Your task to perform on an android device: Go to Amazon Image 0: 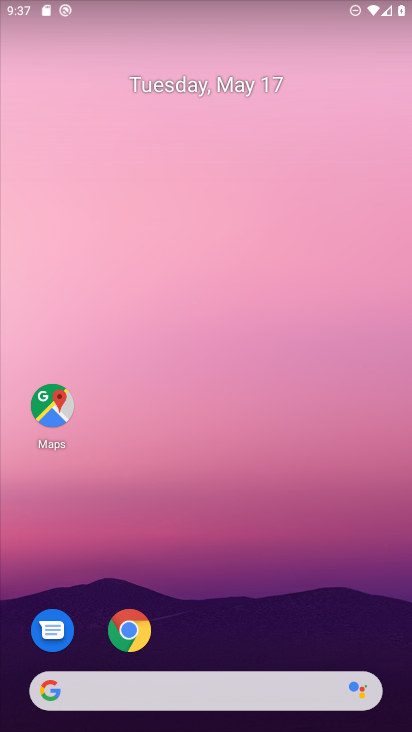
Step 0: drag from (335, 625) to (349, 175)
Your task to perform on an android device: Go to Amazon Image 1: 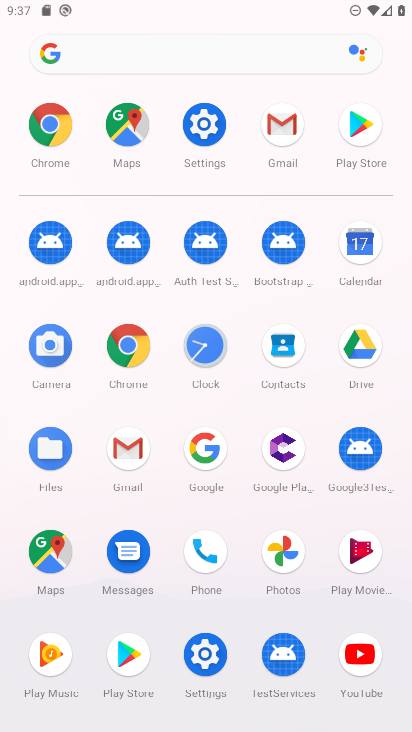
Step 1: click (138, 356)
Your task to perform on an android device: Go to Amazon Image 2: 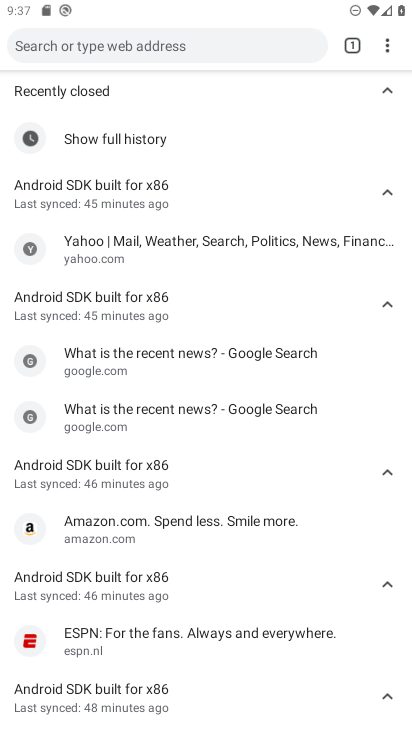
Step 2: click (170, 50)
Your task to perform on an android device: Go to Amazon Image 3: 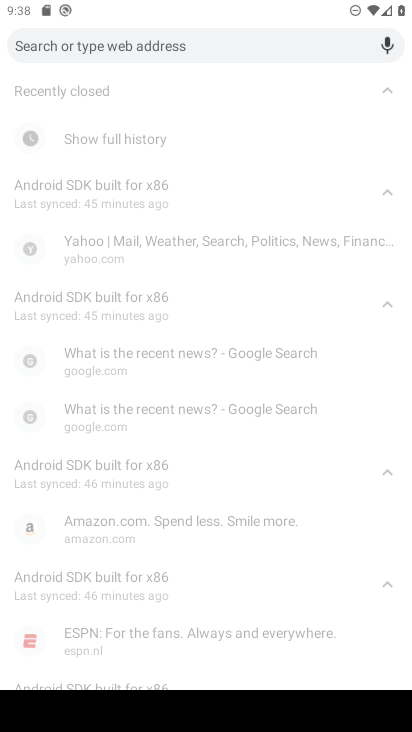
Step 3: type "Amazon"
Your task to perform on an android device: Go to Amazon Image 4: 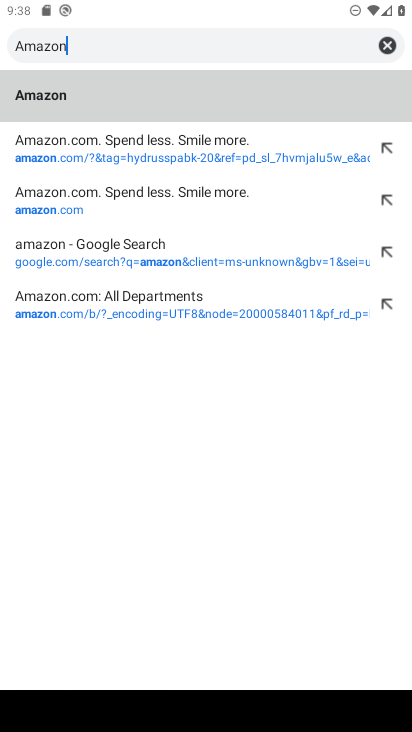
Step 4: click (92, 96)
Your task to perform on an android device: Go to Amazon Image 5: 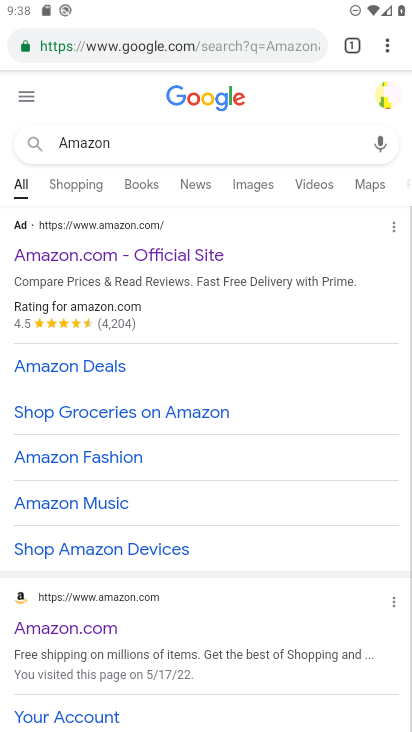
Step 5: click (200, 258)
Your task to perform on an android device: Go to Amazon Image 6: 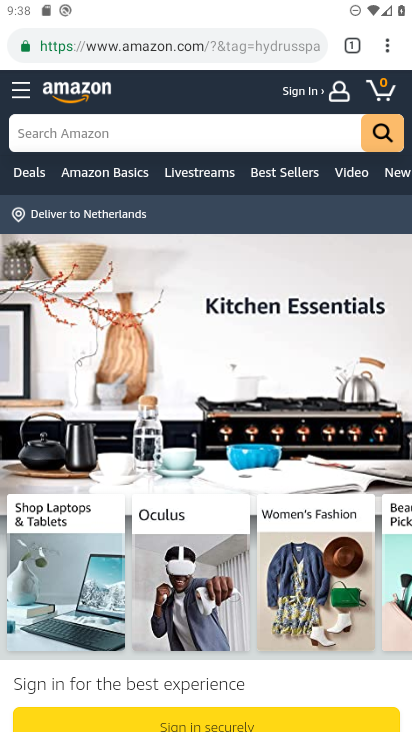
Step 6: task complete